Your task to perform on an android device: toggle airplane mode Image 0: 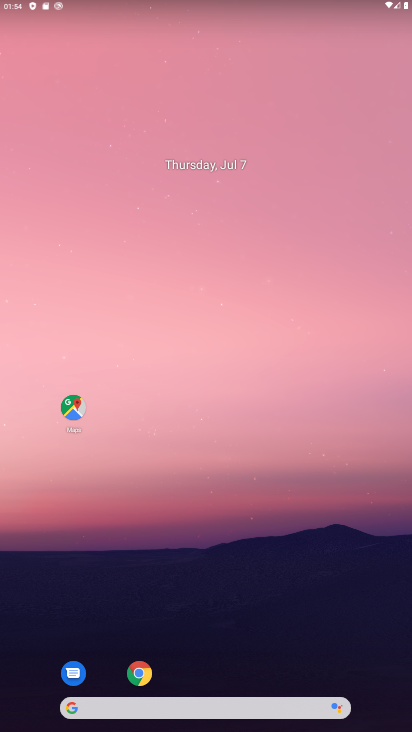
Step 0: drag from (203, 593) to (208, 259)
Your task to perform on an android device: toggle airplane mode Image 1: 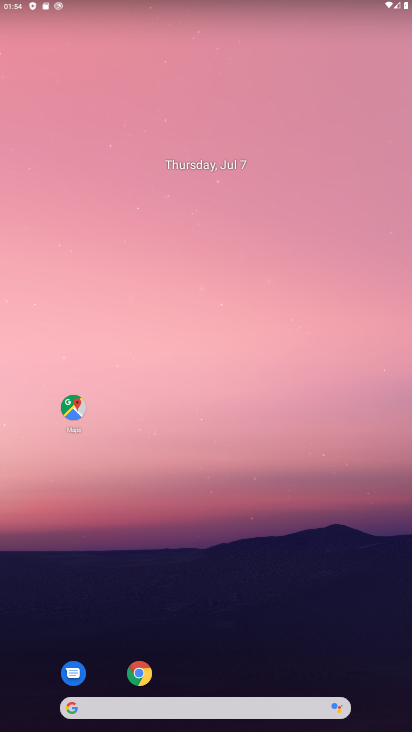
Step 1: drag from (235, 657) to (228, 91)
Your task to perform on an android device: toggle airplane mode Image 2: 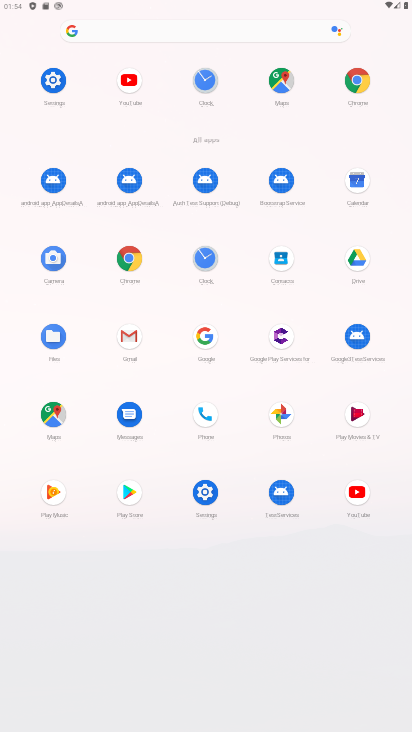
Step 2: click (53, 98)
Your task to perform on an android device: toggle airplane mode Image 3: 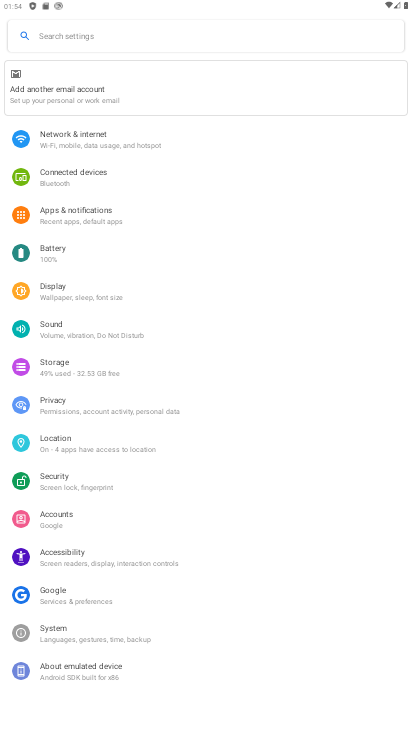
Step 3: click (123, 148)
Your task to perform on an android device: toggle airplane mode Image 4: 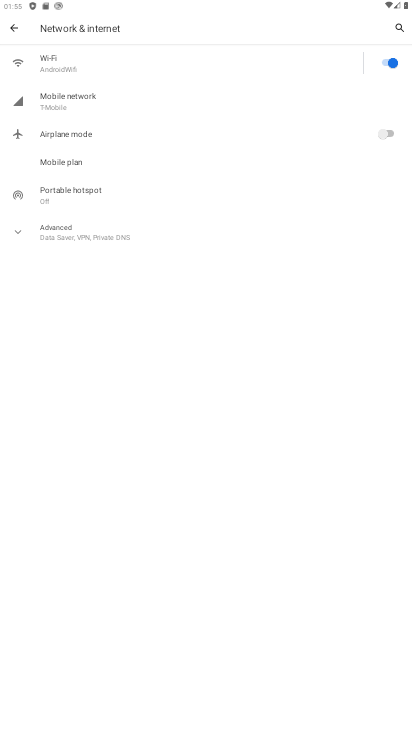
Step 4: click (393, 135)
Your task to perform on an android device: toggle airplane mode Image 5: 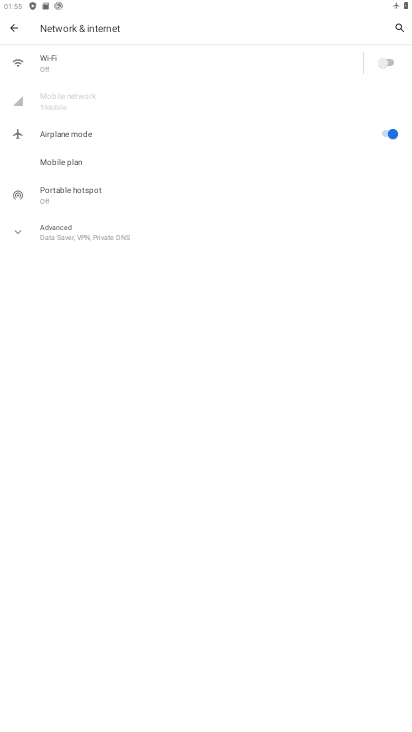
Step 5: task complete